Your task to perform on an android device: Open Google Maps Image 0: 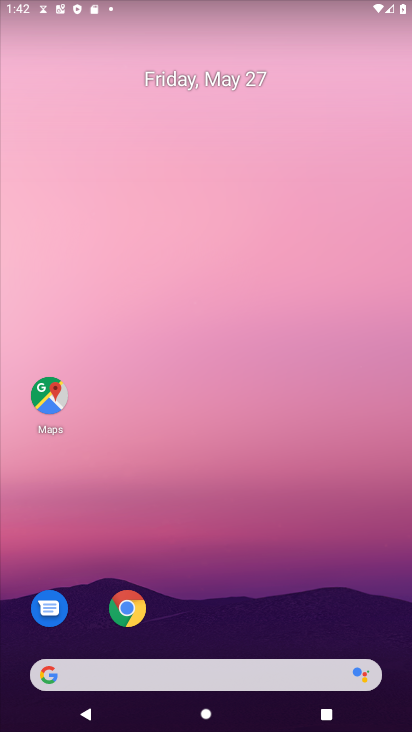
Step 0: click (61, 396)
Your task to perform on an android device: Open Google Maps Image 1: 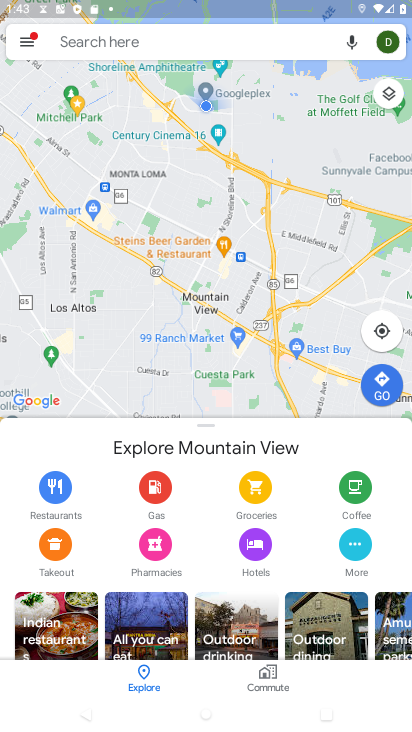
Step 1: task complete